Your task to perform on an android device: Turn on the flashlight Image 0: 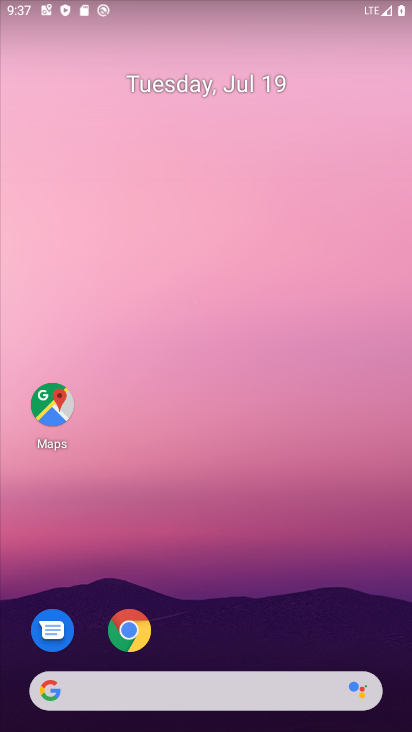
Step 0: drag from (218, 646) to (246, 117)
Your task to perform on an android device: Turn on the flashlight Image 1: 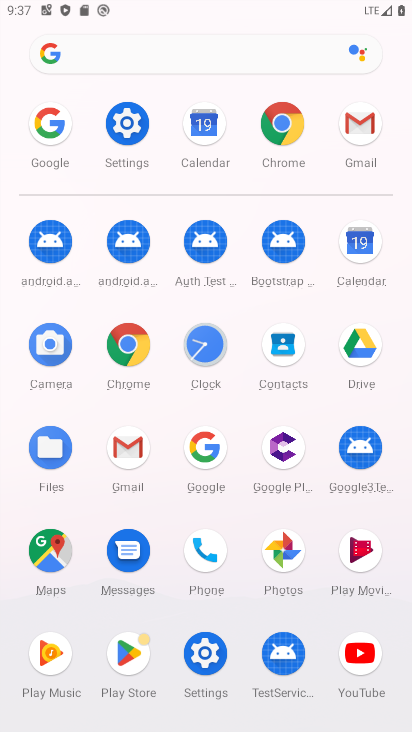
Step 1: click (127, 121)
Your task to perform on an android device: Turn on the flashlight Image 2: 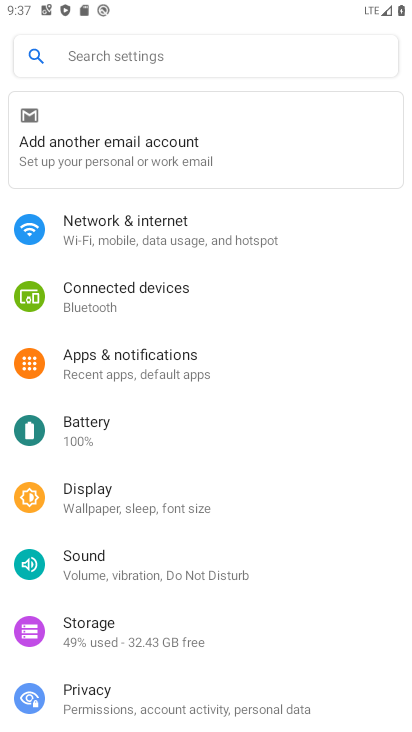
Step 2: click (209, 51)
Your task to perform on an android device: Turn on the flashlight Image 3: 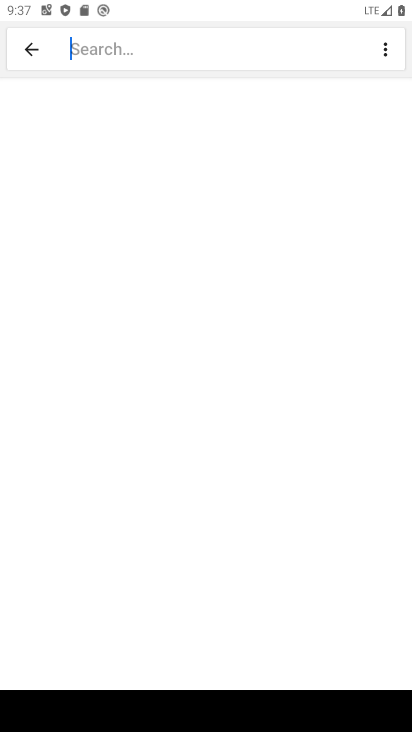
Step 3: type "flashlight"
Your task to perform on an android device: Turn on the flashlight Image 4: 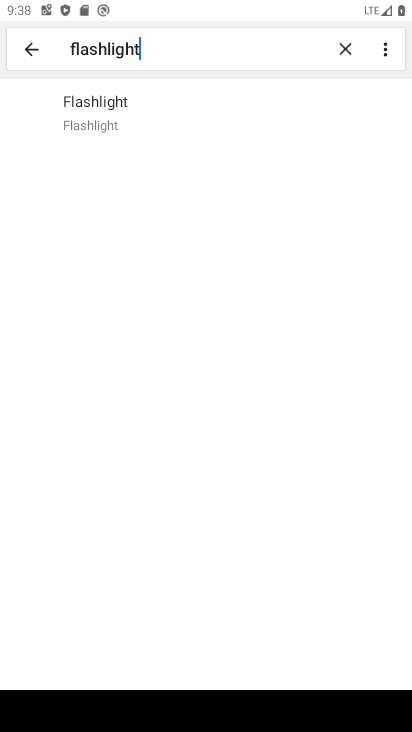
Step 4: click (220, 114)
Your task to perform on an android device: Turn on the flashlight Image 5: 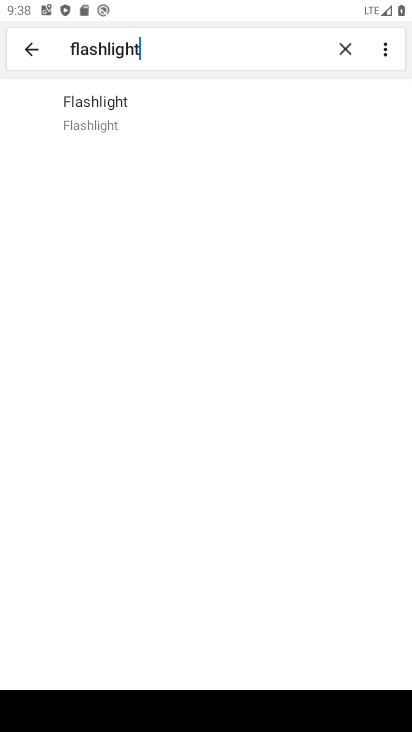
Step 5: task complete